Your task to perform on an android device: delete browsing data in the chrome app Image 0: 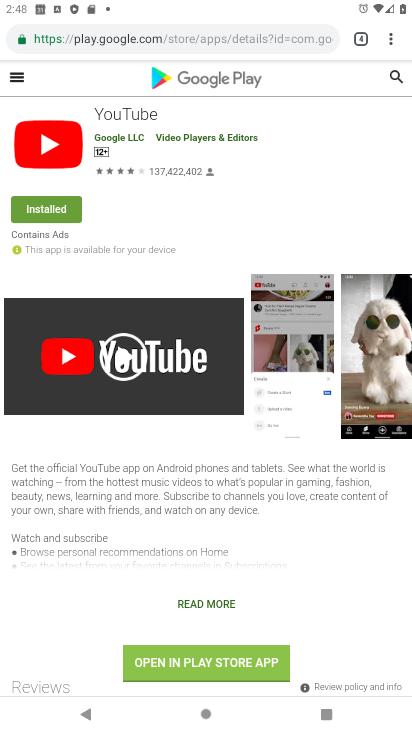
Step 0: click (400, 32)
Your task to perform on an android device: delete browsing data in the chrome app Image 1: 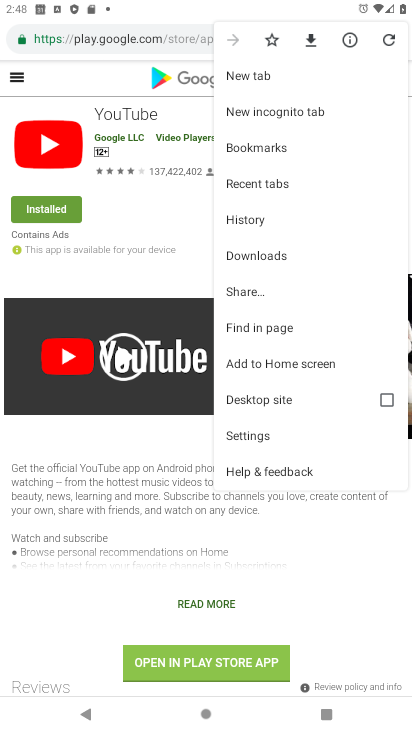
Step 1: click (288, 427)
Your task to perform on an android device: delete browsing data in the chrome app Image 2: 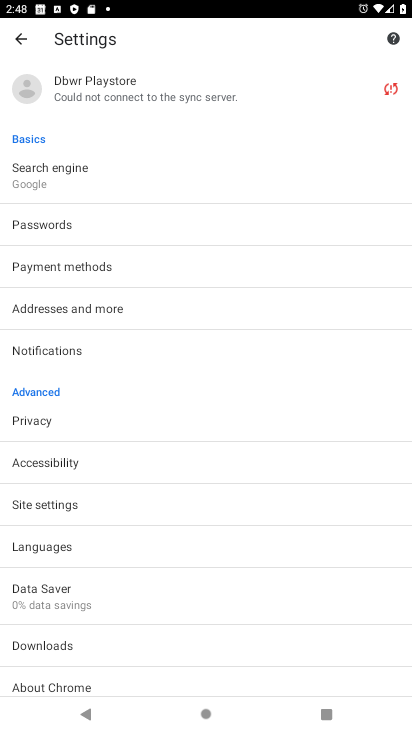
Step 2: click (12, 39)
Your task to perform on an android device: delete browsing data in the chrome app Image 3: 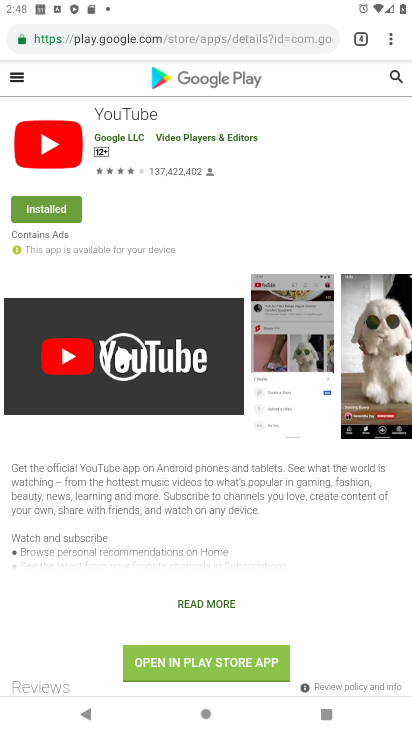
Step 3: click (396, 44)
Your task to perform on an android device: delete browsing data in the chrome app Image 4: 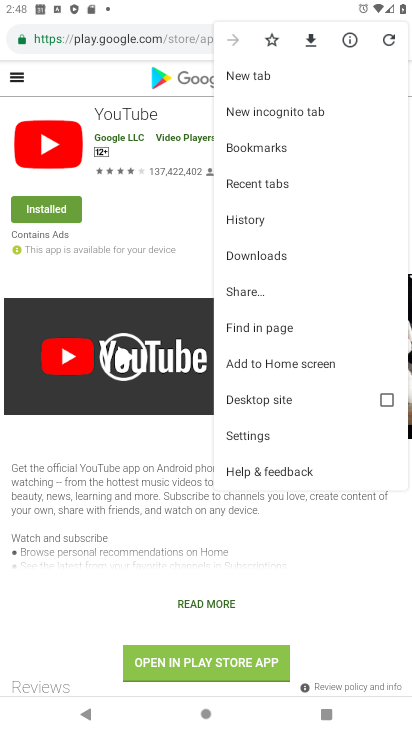
Step 4: click (278, 221)
Your task to perform on an android device: delete browsing data in the chrome app Image 5: 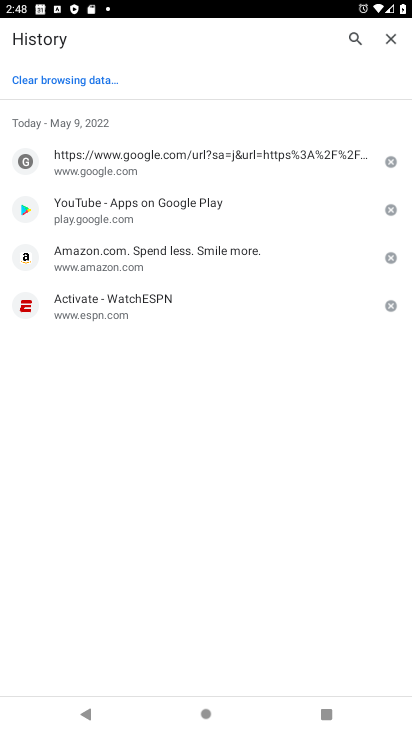
Step 5: click (87, 85)
Your task to perform on an android device: delete browsing data in the chrome app Image 6: 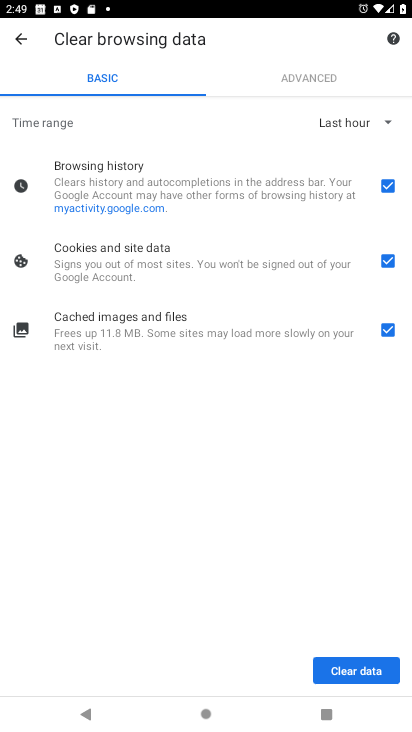
Step 6: click (359, 674)
Your task to perform on an android device: delete browsing data in the chrome app Image 7: 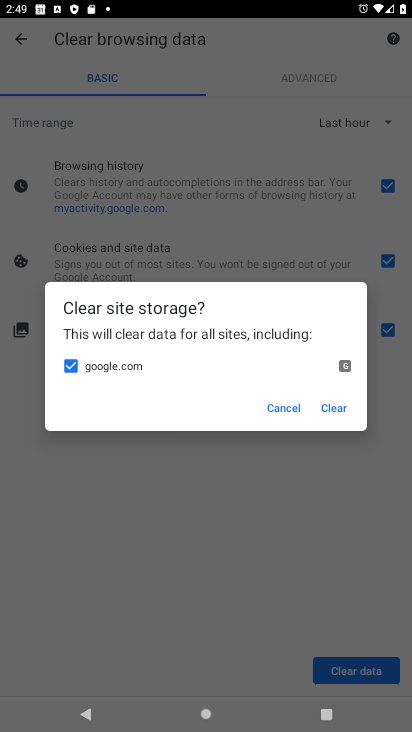
Step 7: task complete